Your task to perform on an android device: turn off priority inbox in the gmail app Image 0: 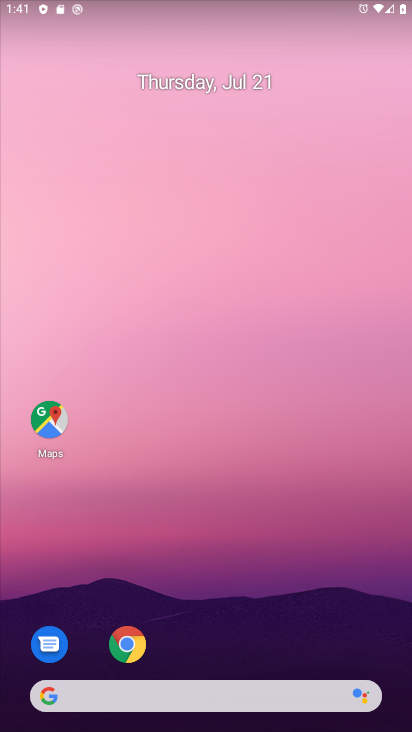
Step 0: press home button
Your task to perform on an android device: turn off priority inbox in the gmail app Image 1: 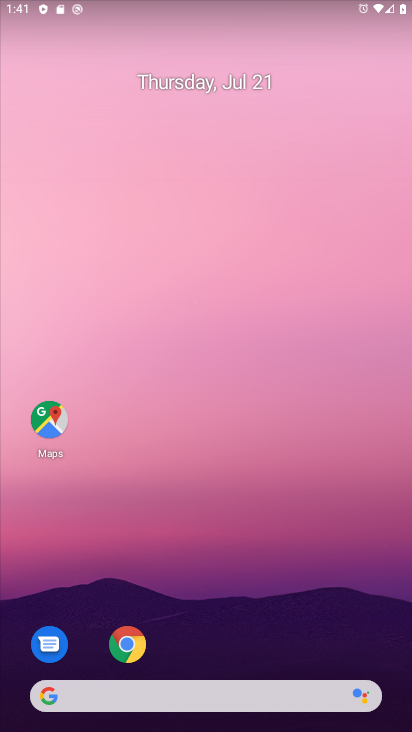
Step 1: drag from (265, 669) to (238, 290)
Your task to perform on an android device: turn off priority inbox in the gmail app Image 2: 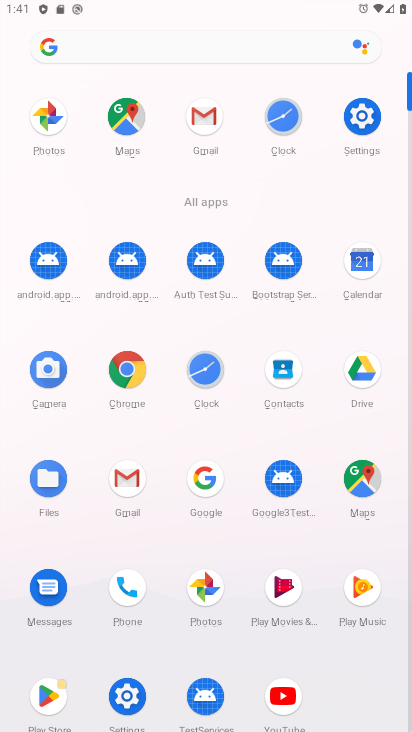
Step 2: click (202, 117)
Your task to perform on an android device: turn off priority inbox in the gmail app Image 3: 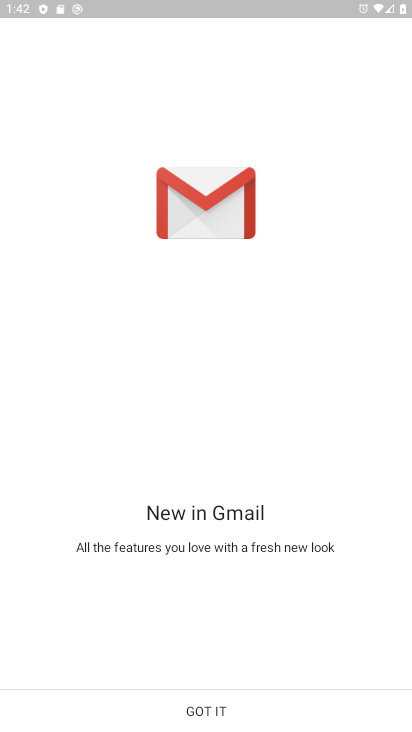
Step 3: click (194, 711)
Your task to perform on an android device: turn off priority inbox in the gmail app Image 4: 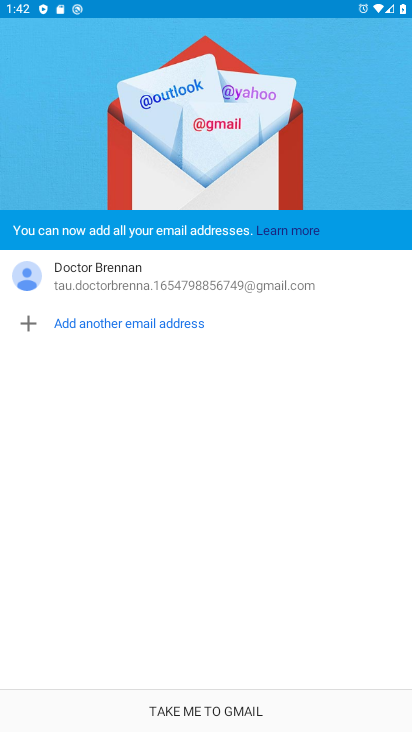
Step 4: click (194, 711)
Your task to perform on an android device: turn off priority inbox in the gmail app Image 5: 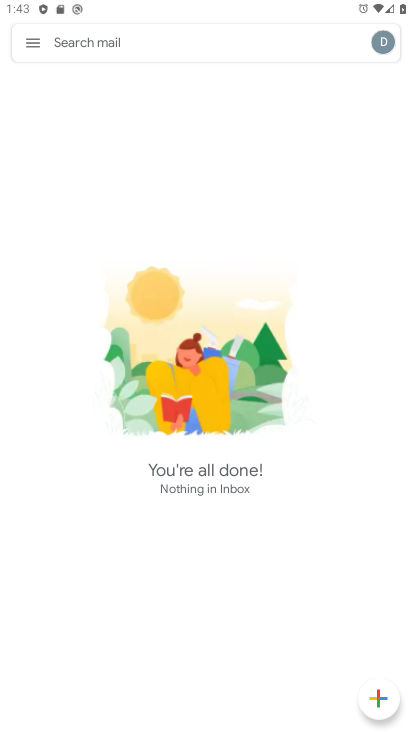
Step 5: click (31, 42)
Your task to perform on an android device: turn off priority inbox in the gmail app Image 6: 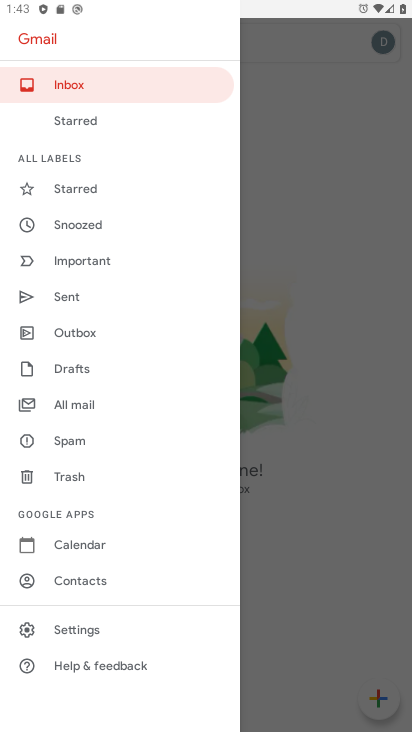
Step 6: click (72, 633)
Your task to perform on an android device: turn off priority inbox in the gmail app Image 7: 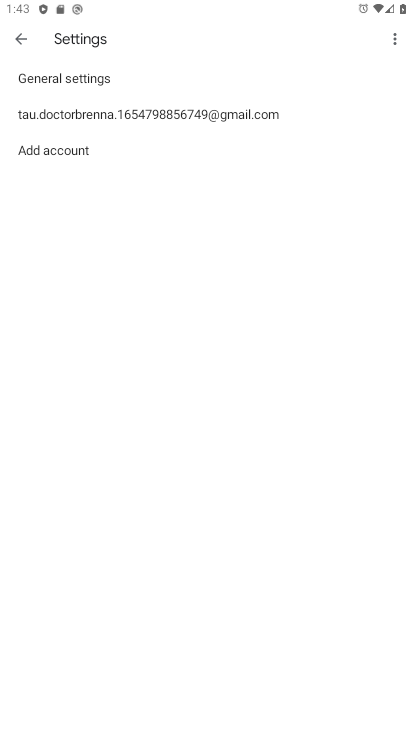
Step 7: click (84, 111)
Your task to perform on an android device: turn off priority inbox in the gmail app Image 8: 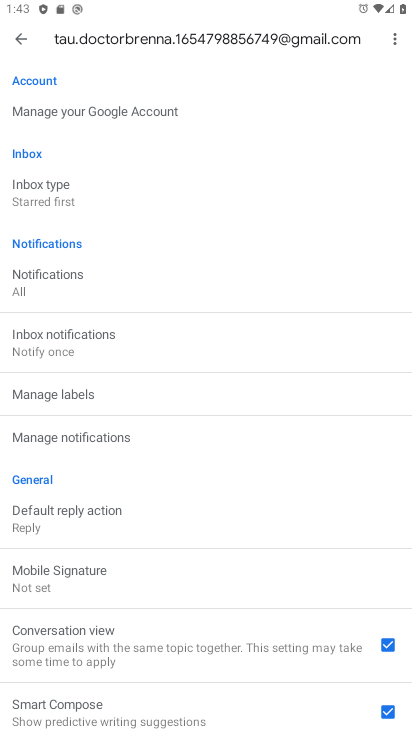
Step 8: click (49, 202)
Your task to perform on an android device: turn off priority inbox in the gmail app Image 9: 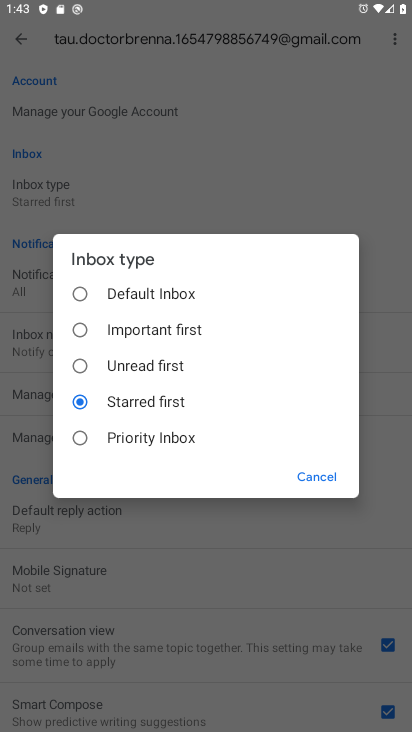
Step 9: click (123, 329)
Your task to perform on an android device: turn off priority inbox in the gmail app Image 10: 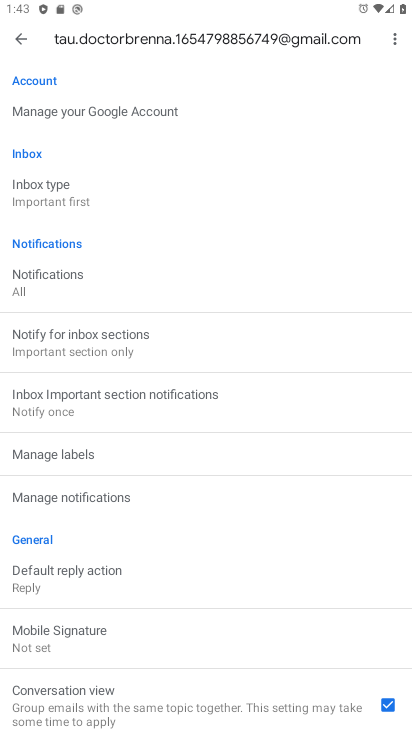
Step 10: task complete